Your task to perform on an android device: Open Reddit.com Image 0: 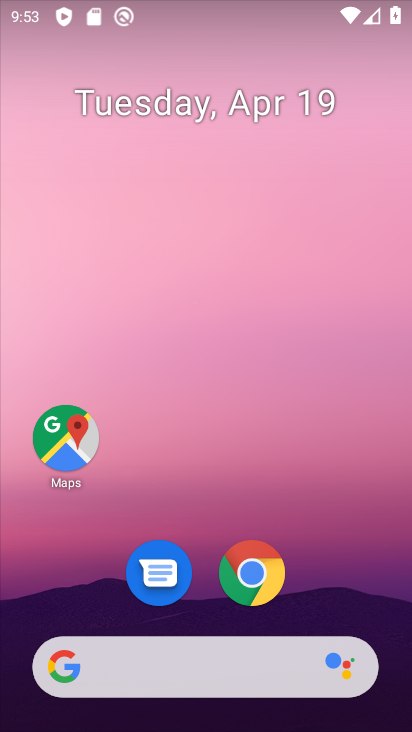
Step 0: drag from (352, 453) to (350, 124)
Your task to perform on an android device: Open Reddit.com Image 1: 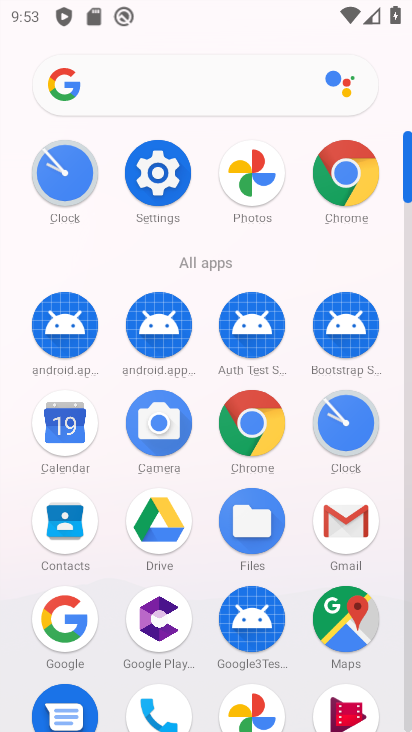
Step 1: click (353, 176)
Your task to perform on an android device: Open Reddit.com Image 2: 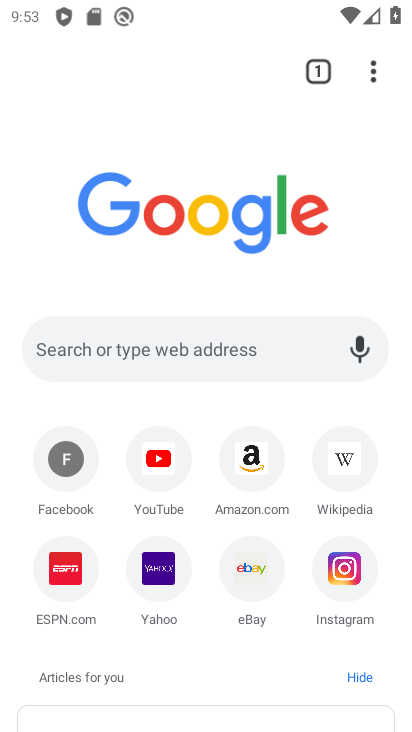
Step 2: click (222, 350)
Your task to perform on an android device: Open Reddit.com Image 3: 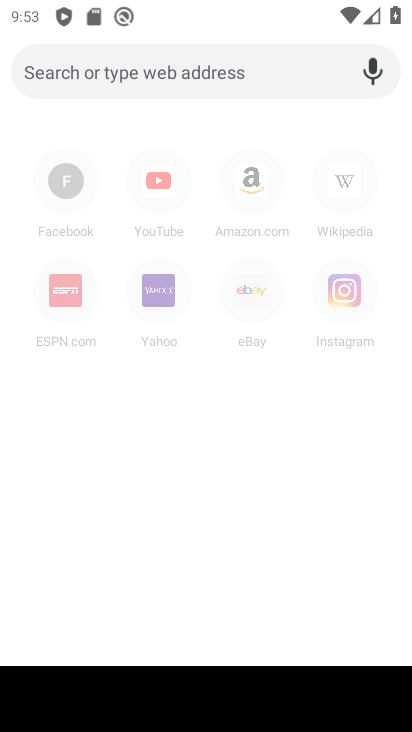
Step 3: type "Reddit .com"
Your task to perform on an android device: Open Reddit.com Image 4: 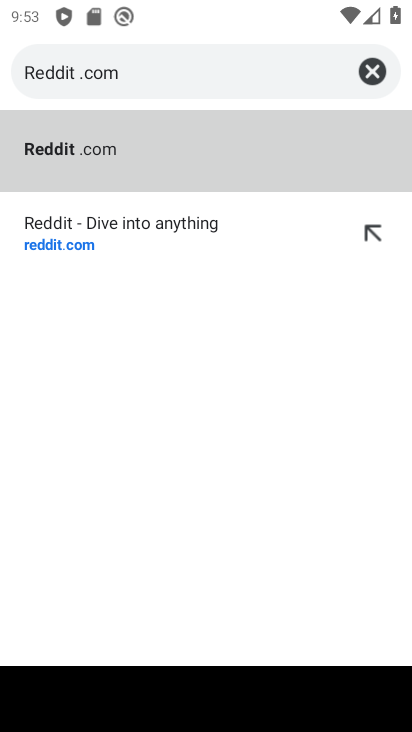
Step 4: click (161, 140)
Your task to perform on an android device: Open Reddit.com Image 5: 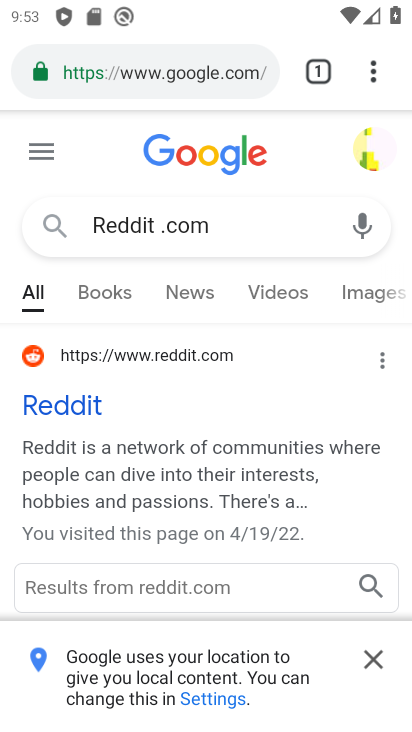
Step 5: click (84, 411)
Your task to perform on an android device: Open Reddit.com Image 6: 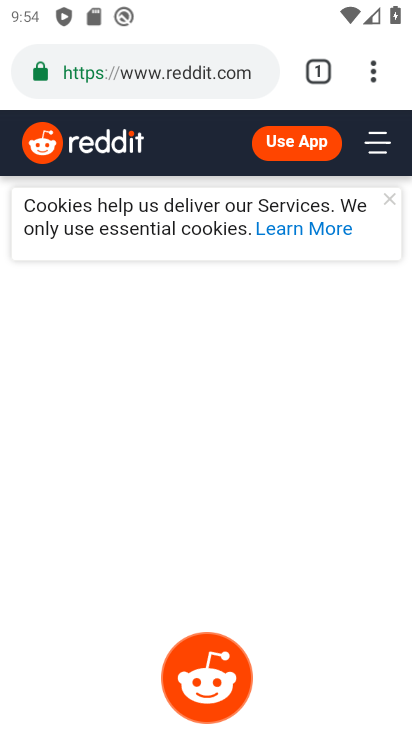
Step 6: task complete